Your task to perform on an android device: toggle sleep mode Image 0: 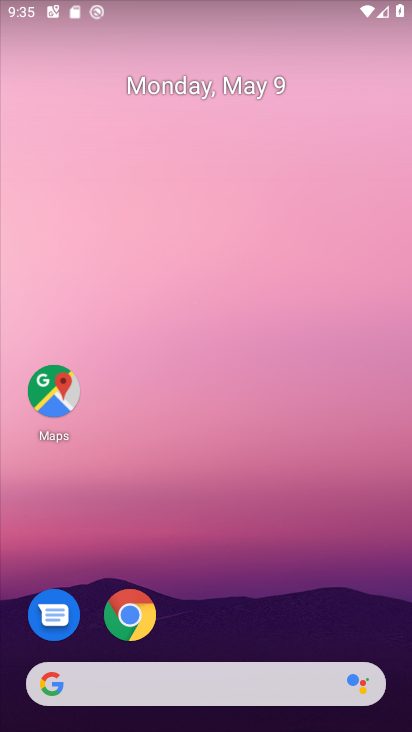
Step 0: drag from (295, 728) to (89, 307)
Your task to perform on an android device: toggle sleep mode Image 1: 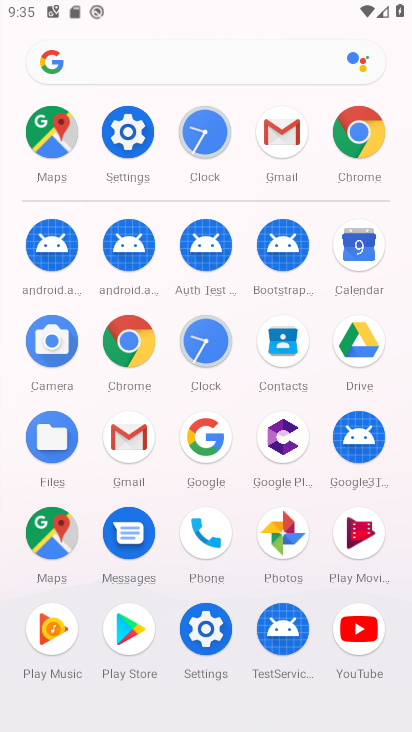
Step 1: click (136, 139)
Your task to perform on an android device: toggle sleep mode Image 2: 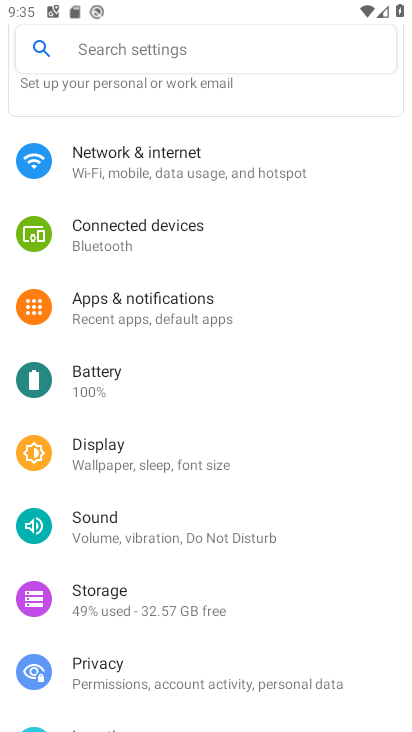
Step 2: click (98, 56)
Your task to perform on an android device: toggle sleep mode Image 3: 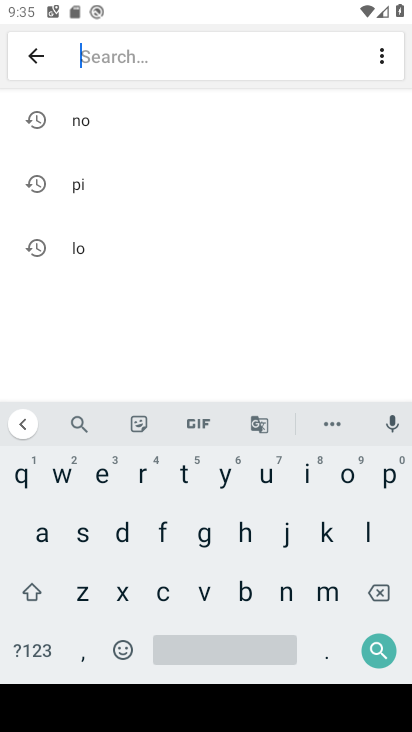
Step 3: click (73, 529)
Your task to perform on an android device: toggle sleep mode Image 4: 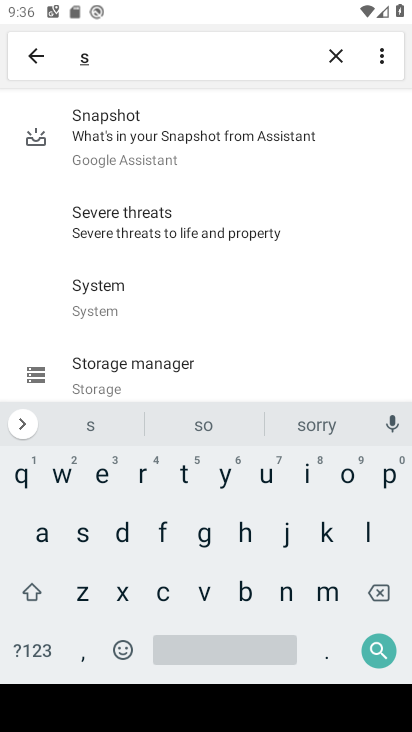
Step 4: click (361, 527)
Your task to perform on an android device: toggle sleep mode Image 5: 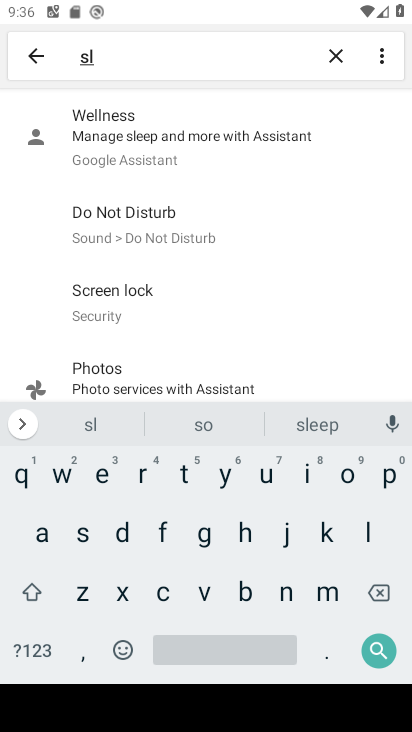
Step 5: click (102, 479)
Your task to perform on an android device: toggle sleep mode Image 6: 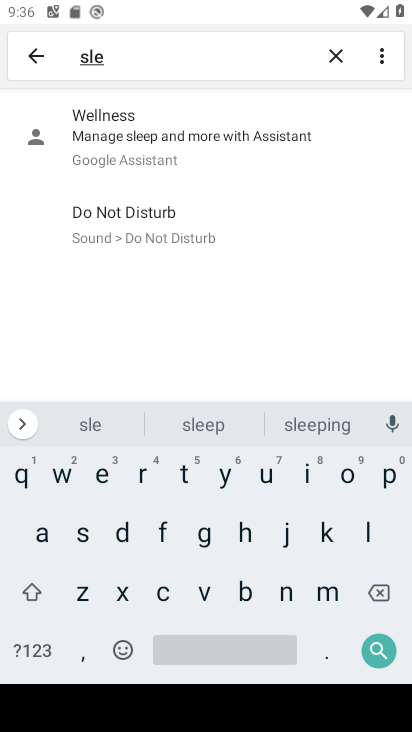
Step 6: click (175, 132)
Your task to perform on an android device: toggle sleep mode Image 7: 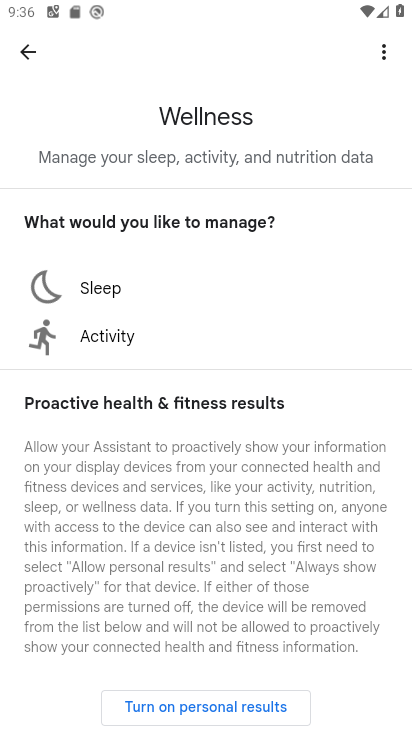
Step 7: click (123, 286)
Your task to perform on an android device: toggle sleep mode Image 8: 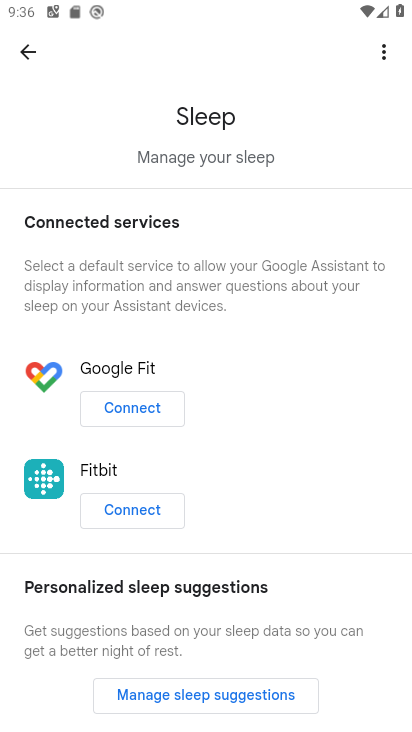
Step 8: task complete